Your task to perform on an android device: add a contact in the contacts app Image 0: 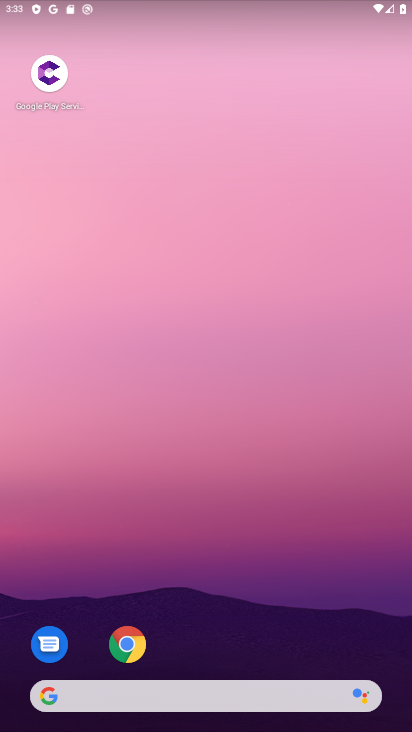
Step 0: drag from (337, 643) to (296, 160)
Your task to perform on an android device: add a contact in the contacts app Image 1: 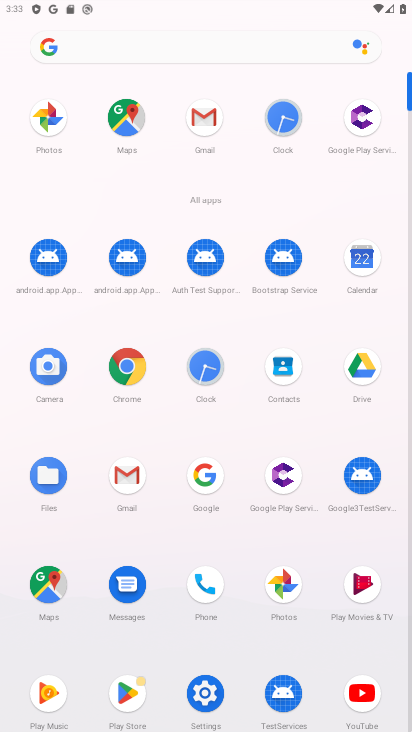
Step 1: click (286, 381)
Your task to perform on an android device: add a contact in the contacts app Image 2: 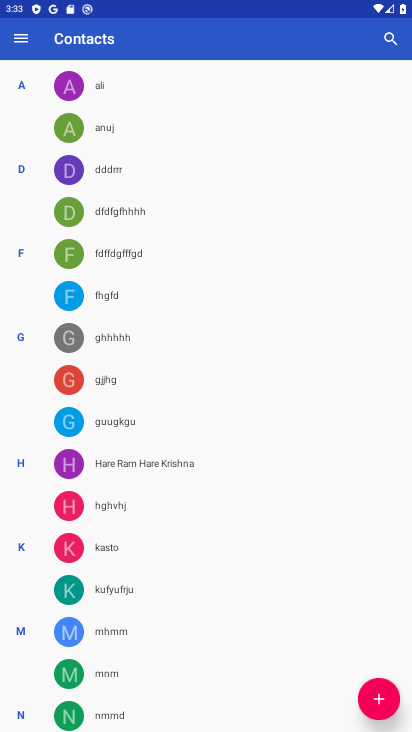
Step 2: click (372, 708)
Your task to perform on an android device: add a contact in the contacts app Image 3: 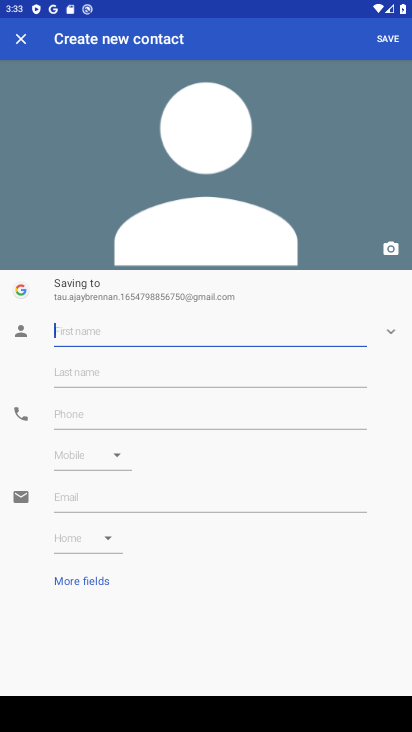
Step 3: click (115, 333)
Your task to perform on an android device: add a contact in the contacts app Image 4: 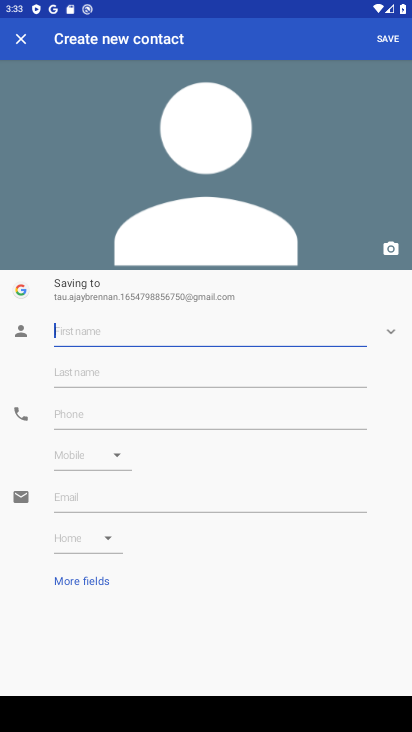
Step 4: type "vhvhjvvvj"
Your task to perform on an android device: add a contact in the contacts app Image 5: 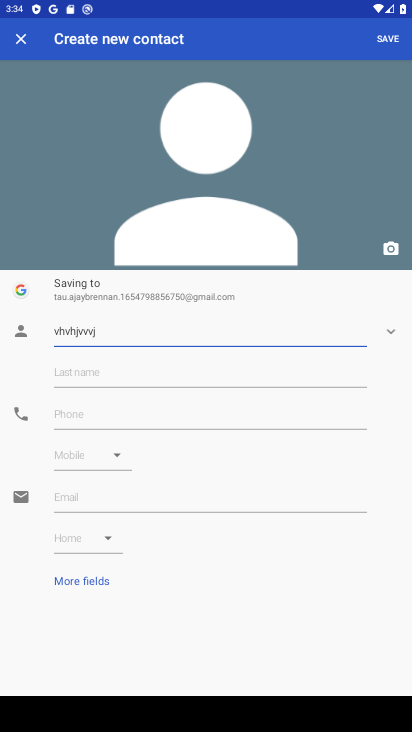
Step 5: click (334, 410)
Your task to perform on an android device: add a contact in the contacts app Image 6: 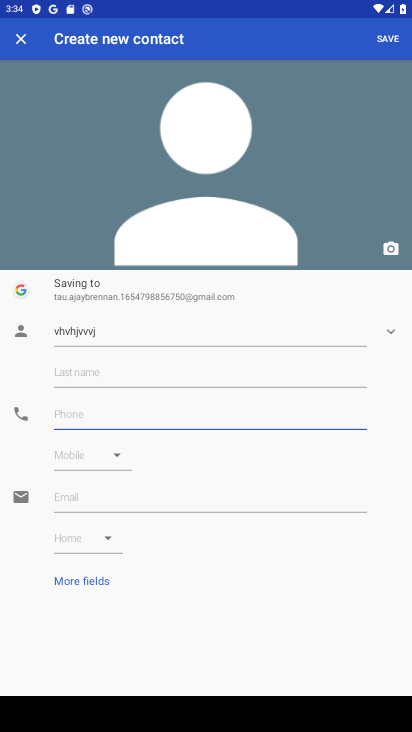
Step 6: type "676776876876"
Your task to perform on an android device: add a contact in the contacts app Image 7: 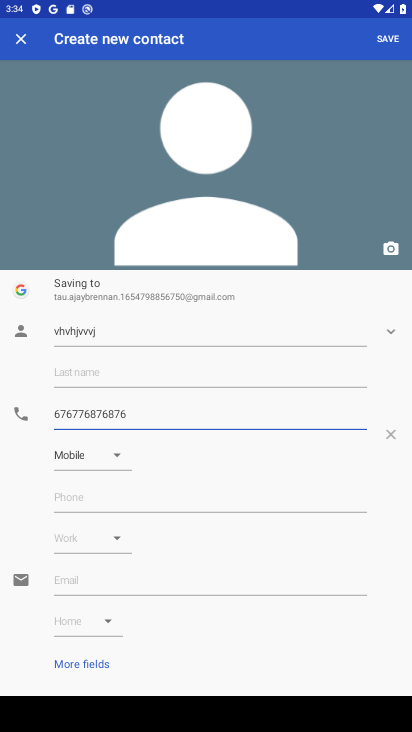
Step 7: click (395, 40)
Your task to perform on an android device: add a contact in the contacts app Image 8: 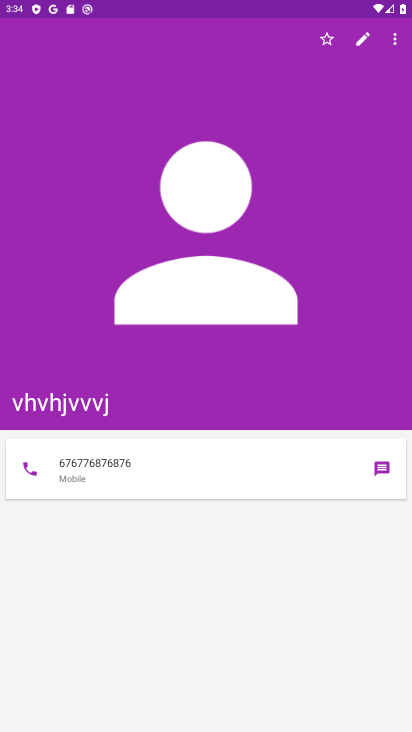
Step 8: task complete